Your task to perform on an android device: Open Google Image 0: 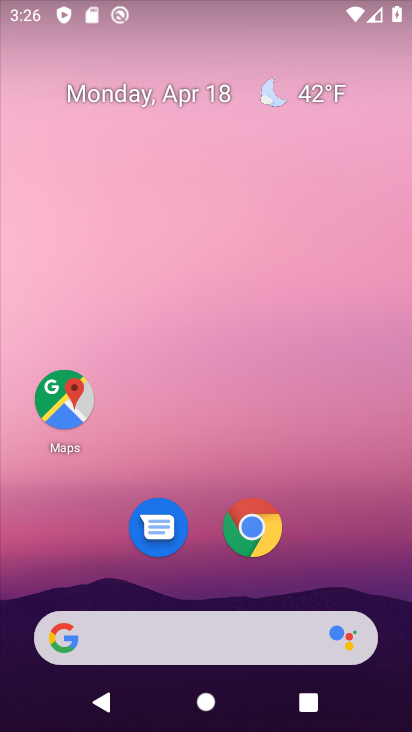
Step 0: click (252, 525)
Your task to perform on an android device: Open Google Image 1: 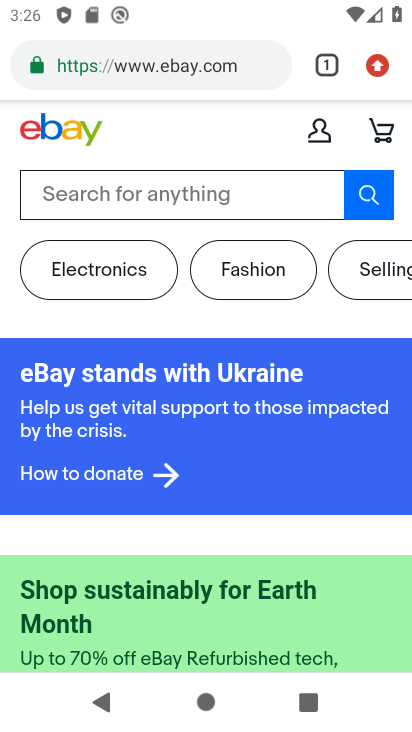
Step 1: task complete